Your task to perform on an android device: turn on notifications settings in the gmail app Image 0: 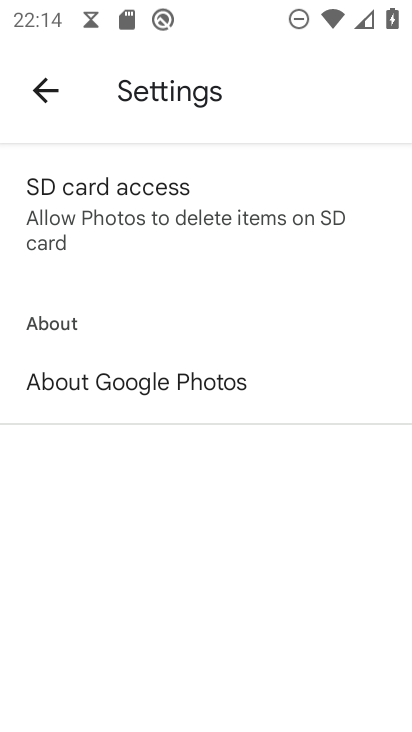
Step 0: press home button
Your task to perform on an android device: turn on notifications settings in the gmail app Image 1: 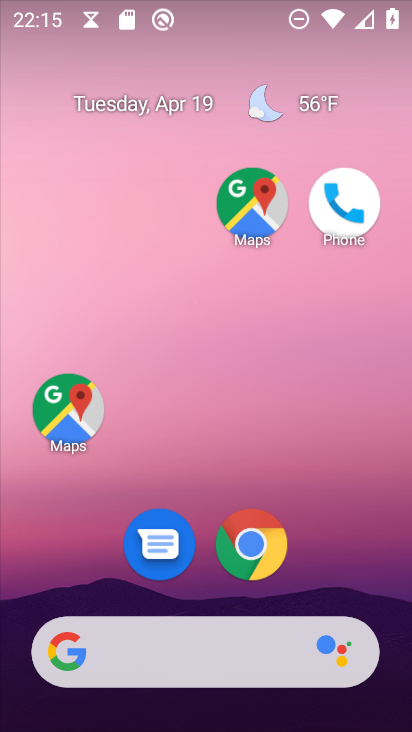
Step 1: drag from (152, 655) to (287, 31)
Your task to perform on an android device: turn on notifications settings in the gmail app Image 2: 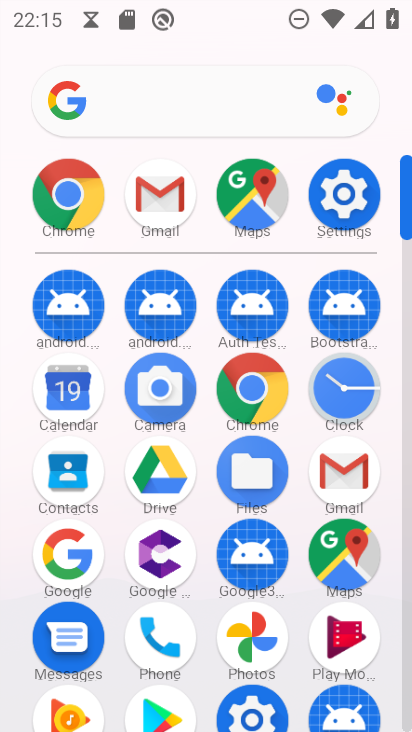
Step 2: click (161, 208)
Your task to perform on an android device: turn on notifications settings in the gmail app Image 3: 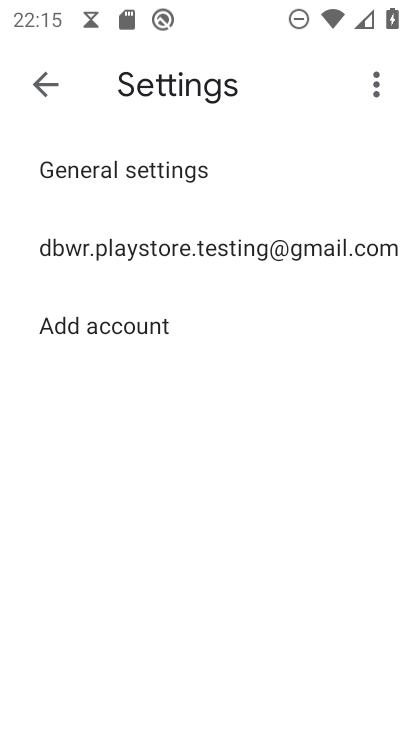
Step 3: click (193, 246)
Your task to perform on an android device: turn on notifications settings in the gmail app Image 4: 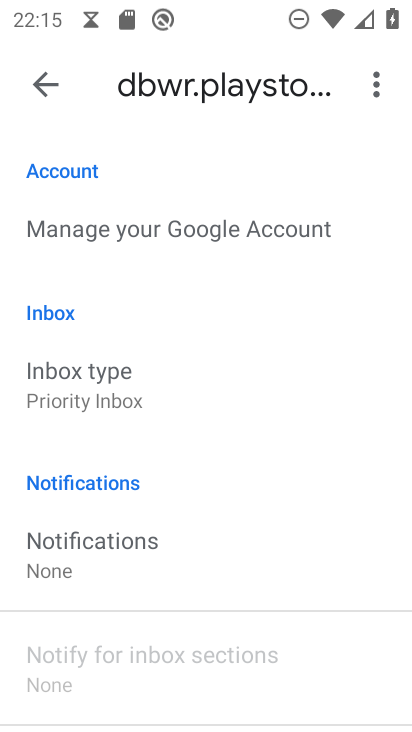
Step 4: drag from (225, 516) to (312, 266)
Your task to perform on an android device: turn on notifications settings in the gmail app Image 5: 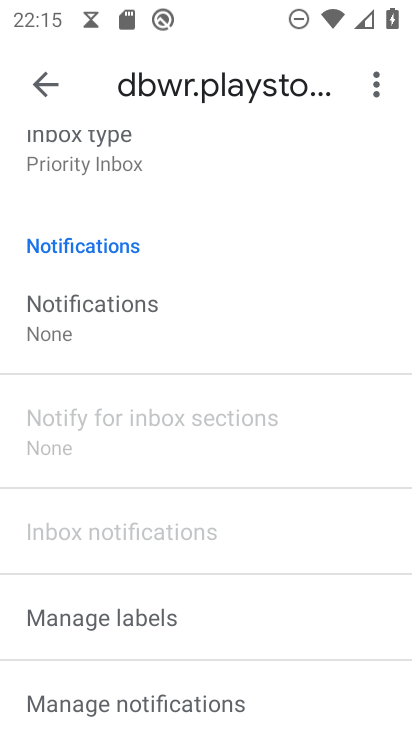
Step 5: click (131, 306)
Your task to perform on an android device: turn on notifications settings in the gmail app Image 6: 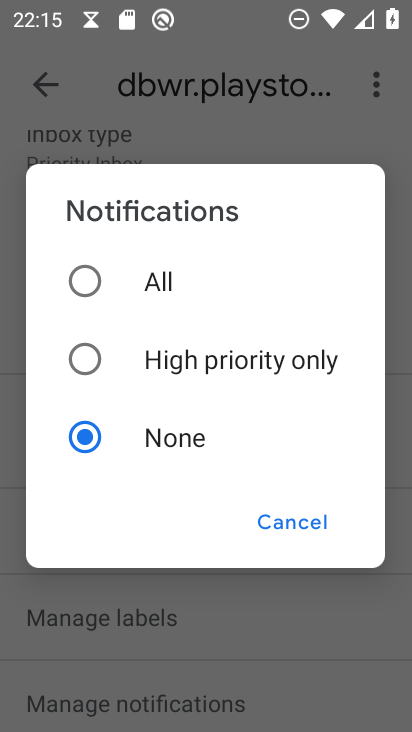
Step 6: click (92, 280)
Your task to perform on an android device: turn on notifications settings in the gmail app Image 7: 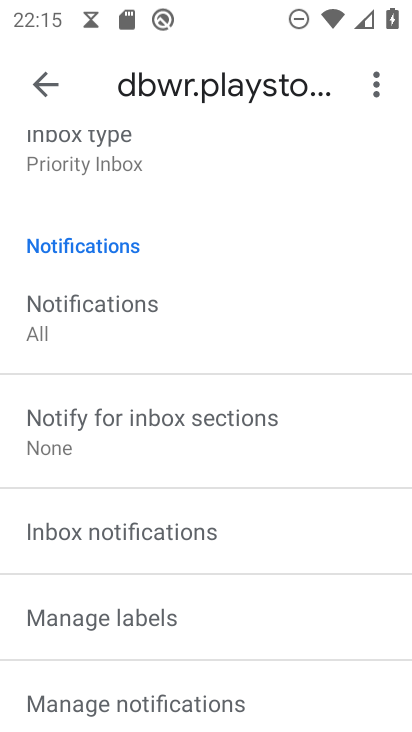
Step 7: task complete